Your task to perform on an android device: Go to notification settings Image 0: 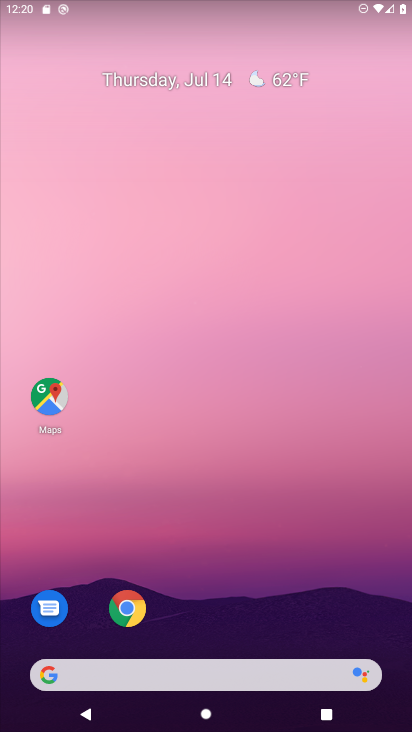
Step 0: drag from (239, 693) to (232, 104)
Your task to perform on an android device: Go to notification settings Image 1: 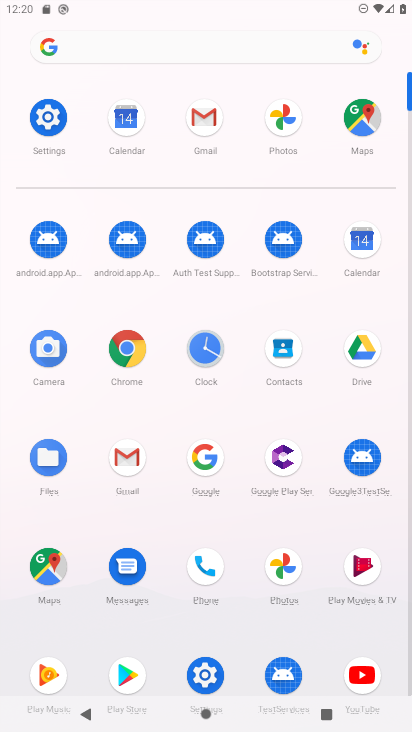
Step 1: click (48, 116)
Your task to perform on an android device: Go to notification settings Image 2: 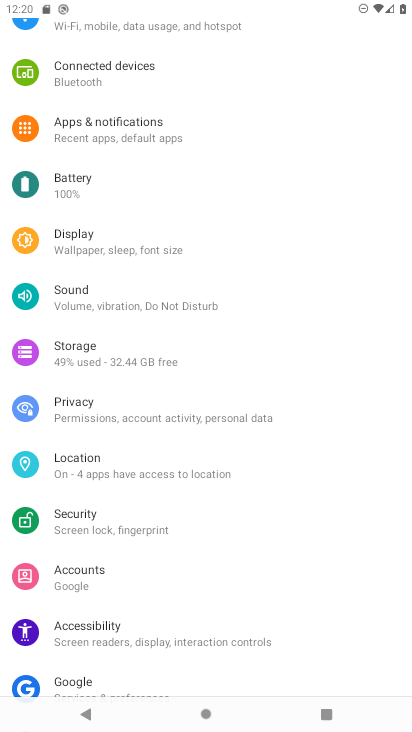
Step 2: click (94, 131)
Your task to perform on an android device: Go to notification settings Image 3: 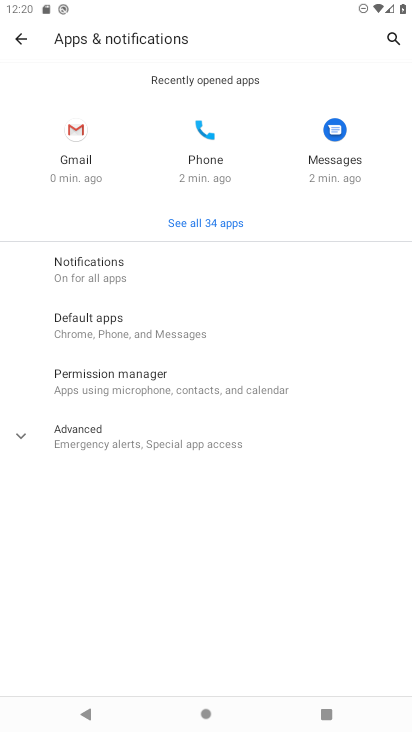
Step 3: click (86, 273)
Your task to perform on an android device: Go to notification settings Image 4: 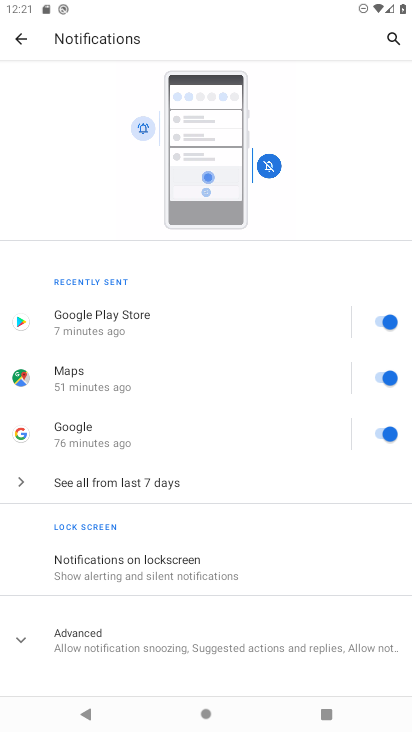
Step 4: task complete